Your task to perform on an android device: Open Google Chrome and open the bookmarks view Image 0: 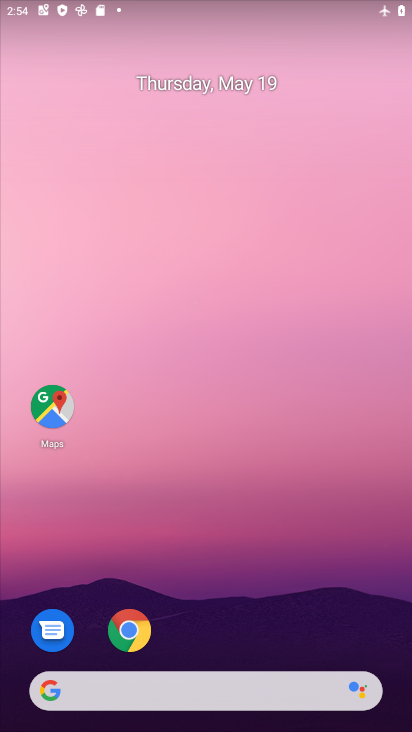
Step 0: click (126, 627)
Your task to perform on an android device: Open Google Chrome and open the bookmarks view Image 1: 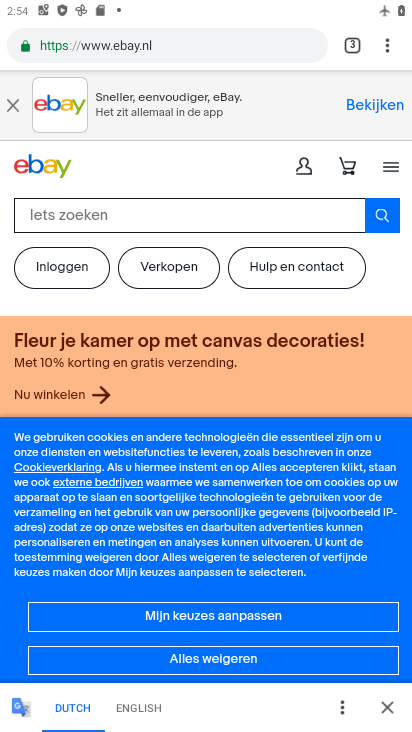
Step 1: click (379, 48)
Your task to perform on an android device: Open Google Chrome and open the bookmarks view Image 2: 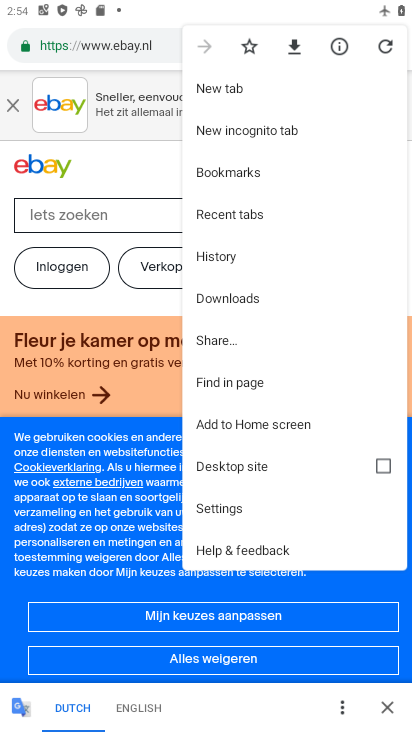
Step 2: click (229, 168)
Your task to perform on an android device: Open Google Chrome and open the bookmarks view Image 3: 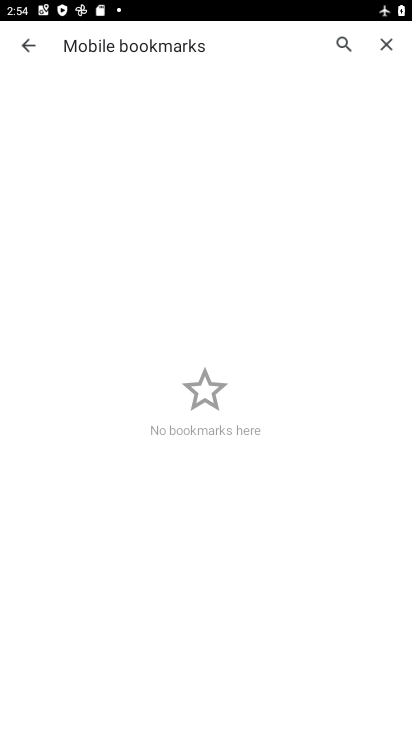
Step 3: task complete